Your task to perform on an android device: Search for vegetarian restaurants on Maps Image 0: 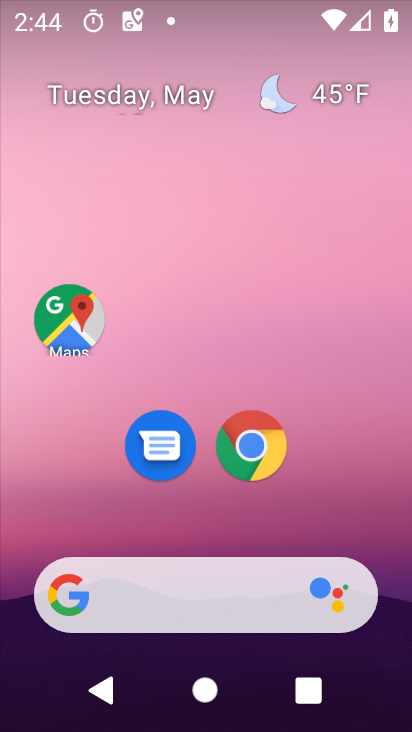
Step 0: click (64, 326)
Your task to perform on an android device: Search for vegetarian restaurants on Maps Image 1: 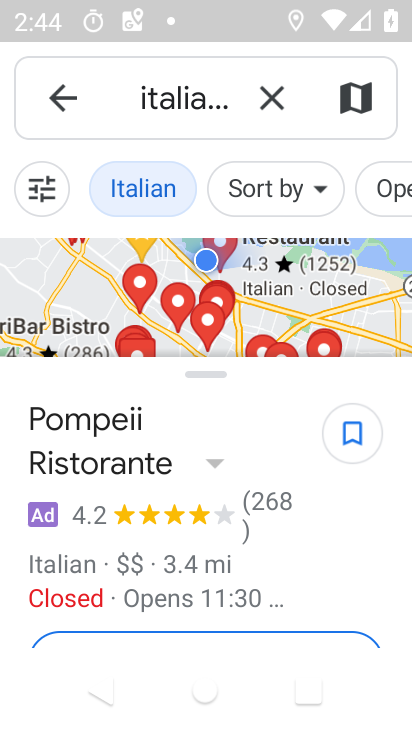
Step 1: click (268, 103)
Your task to perform on an android device: Search for vegetarian restaurants on Maps Image 2: 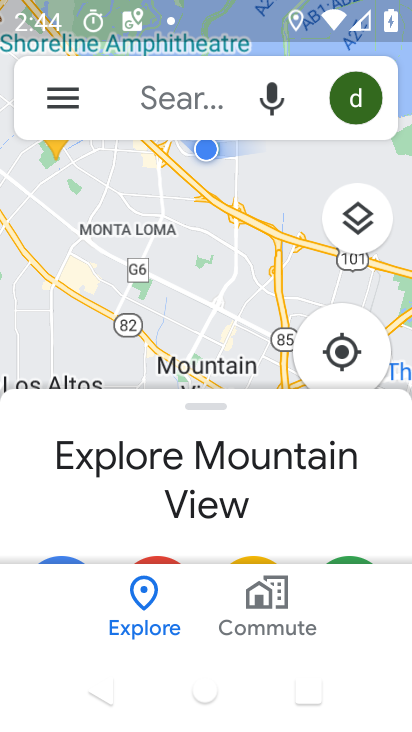
Step 2: click (139, 98)
Your task to perform on an android device: Search for vegetarian restaurants on Maps Image 3: 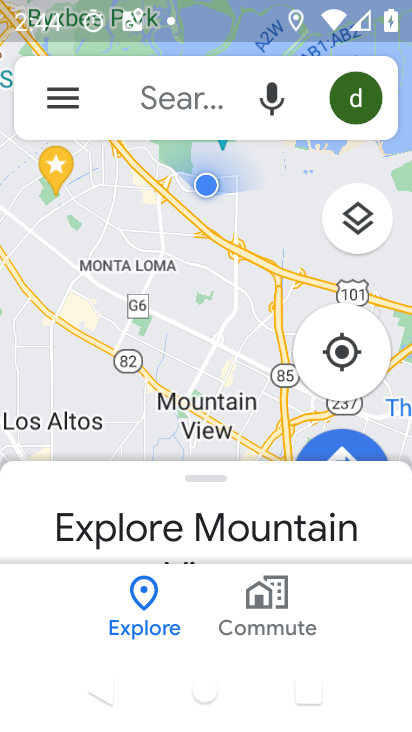
Step 3: click (214, 93)
Your task to perform on an android device: Search for vegetarian restaurants on Maps Image 4: 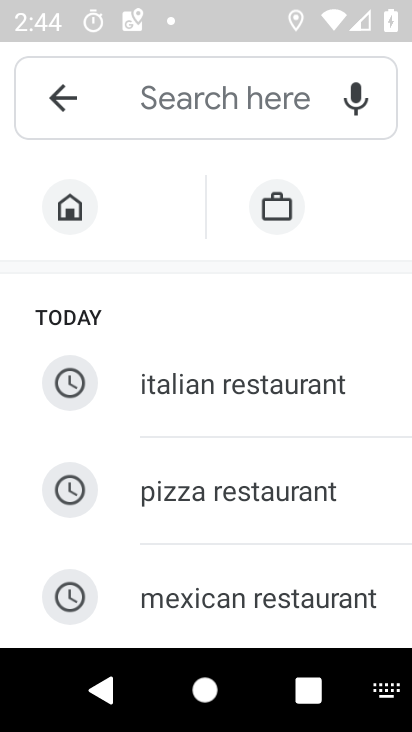
Step 4: drag from (173, 584) to (271, 183)
Your task to perform on an android device: Search for vegetarian restaurants on Maps Image 5: 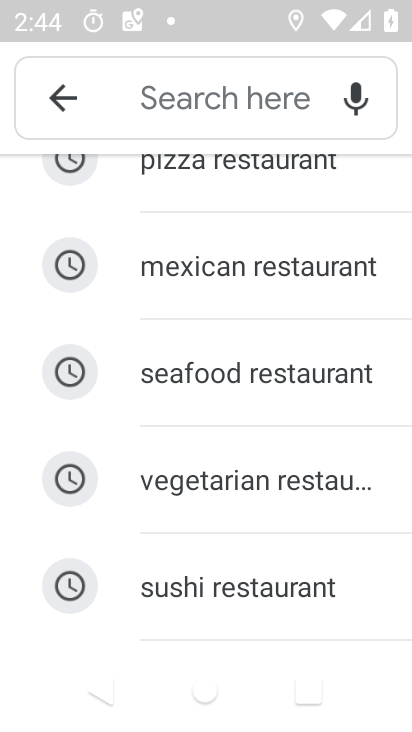
Step 5: click (207, 501)
Your task to perform on an android device: Search for vegetarian restaurants on Maps Image 6: 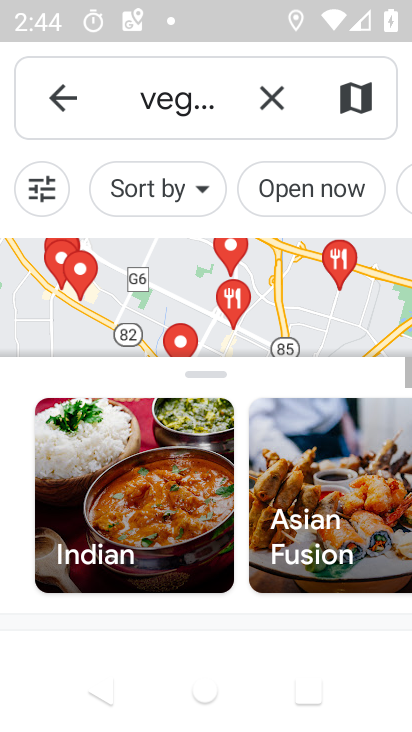
Step 6: task complete